Your task to perform on an android device: What is the recent news? Image 0: 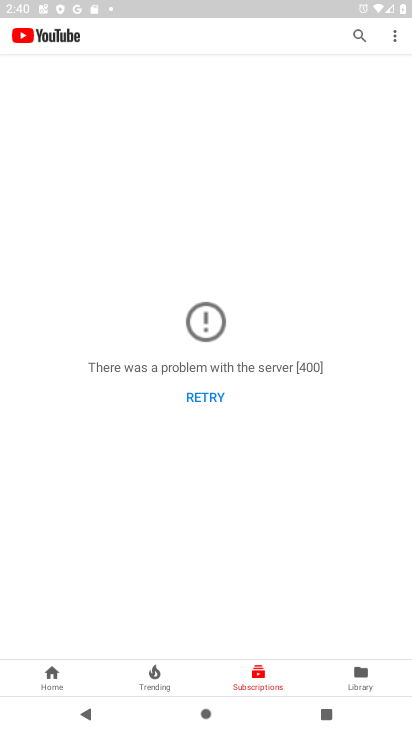
Step 0: press home button
Your task to perform on an android device: What is the recent news? Image 1: 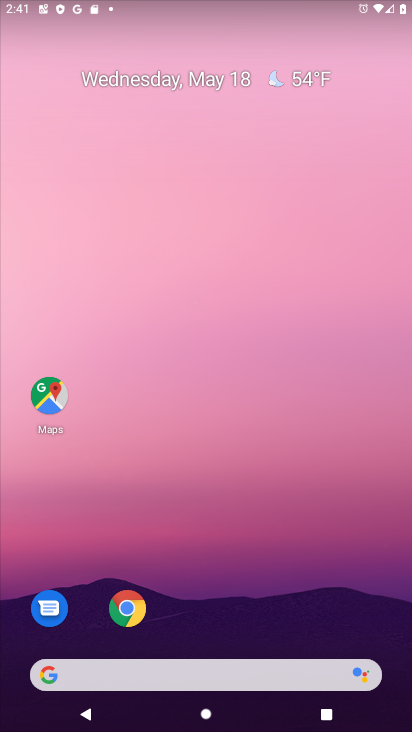
Step 1: click (140, 673)
Your task to perform on an android device: What is the recent news? Image 2: 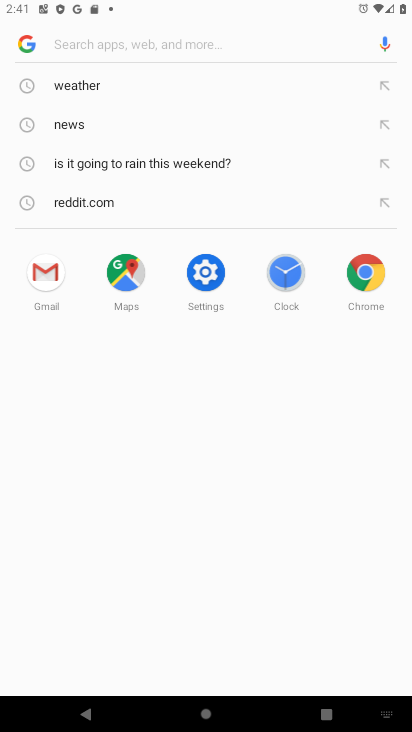
Step 2: click (99, 38)
Your task to perform on an android device: What is the recent news? Image 3: 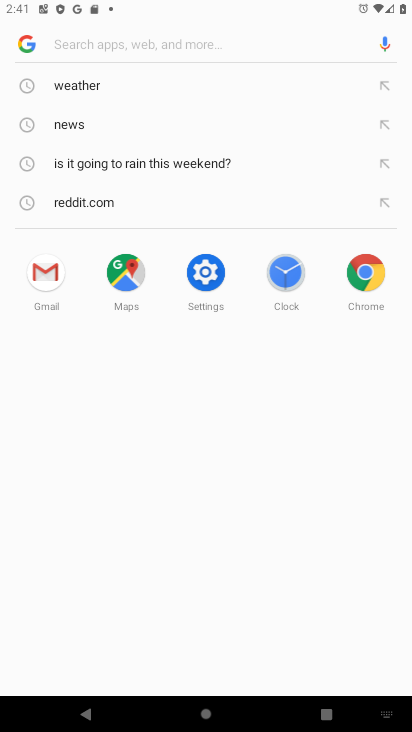
Step 3: type "recent news"
Your task to perform on an android device: What is the recent news? Image 4: 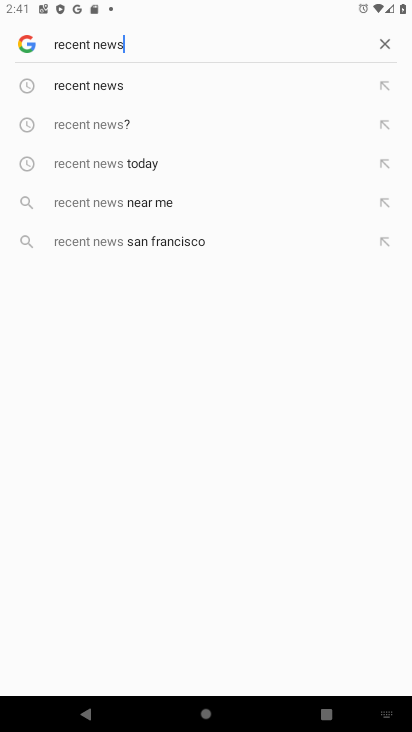
Step 4: click (65, 86)
Your task to perform on an android device: What is the recent news? Image 5: 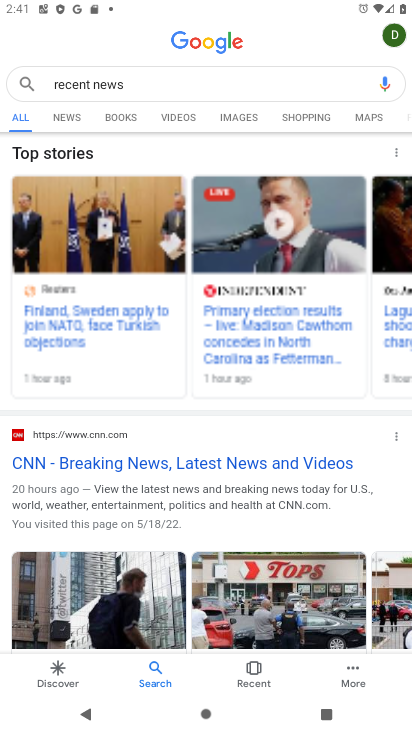
Step 5: click (76, 115)
Your task to perform on an android device: What is the recent news? Image 6: 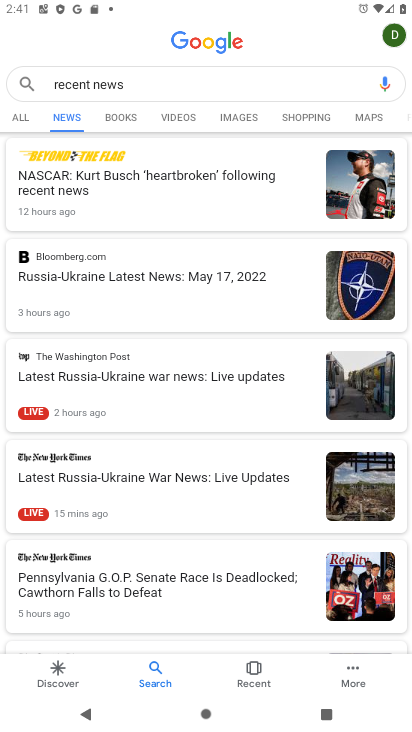
Step 6: click (107, 459)
Your task to perform on an android device: What is the recent news? Image 7: 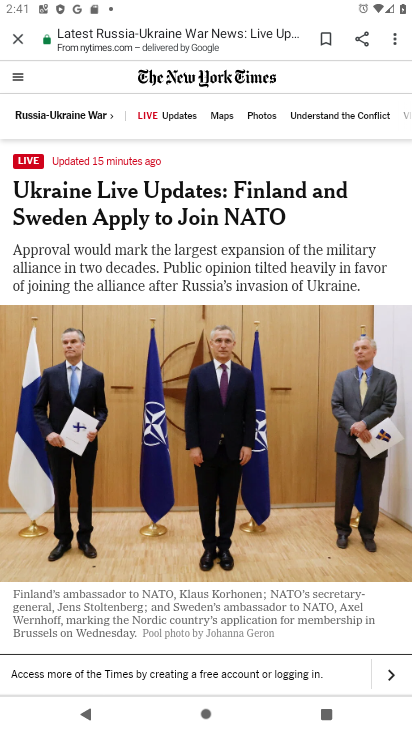
Step 7: task complete